Your task to perform on an android device: Search for sushi restaurants on Maps Image 0: 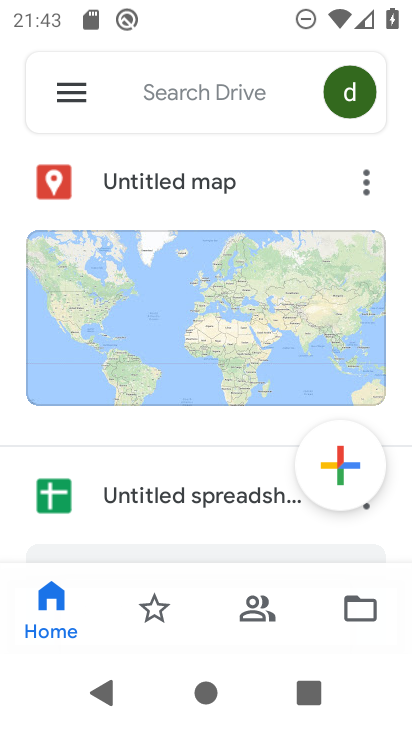
Step 0: press home button
Your task to perform on an android device: Search for sushi restaurants on Maps Image 1: 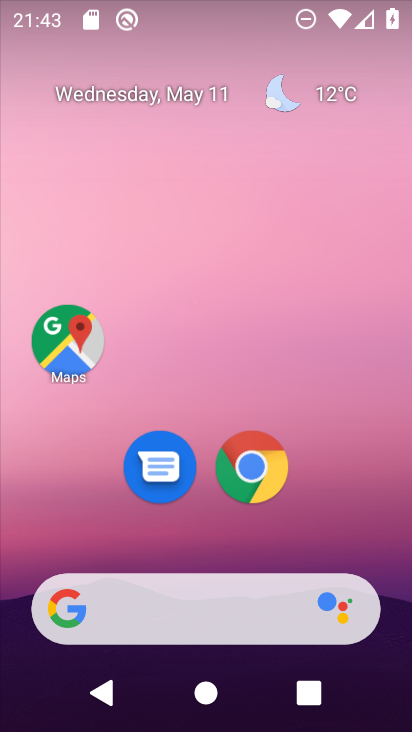
Step 1: click (69, 337)
Your task to perform on an android device: Search for sushi restaurants on Maps Image 2: 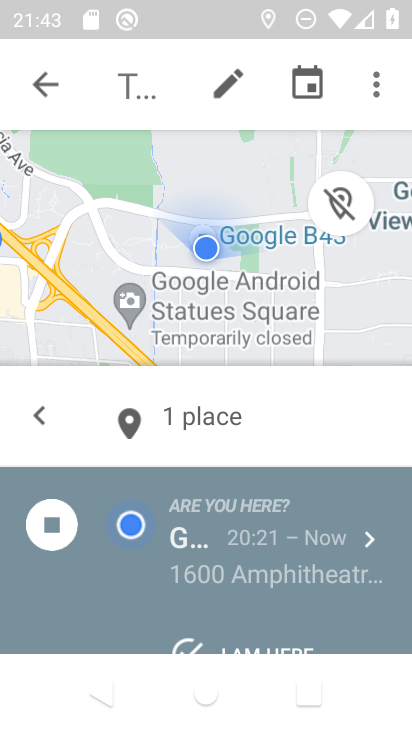
Step 2: click (51, 89)
Your task to perform on an android device: Search for sushi restaurants on Maps Image 3: 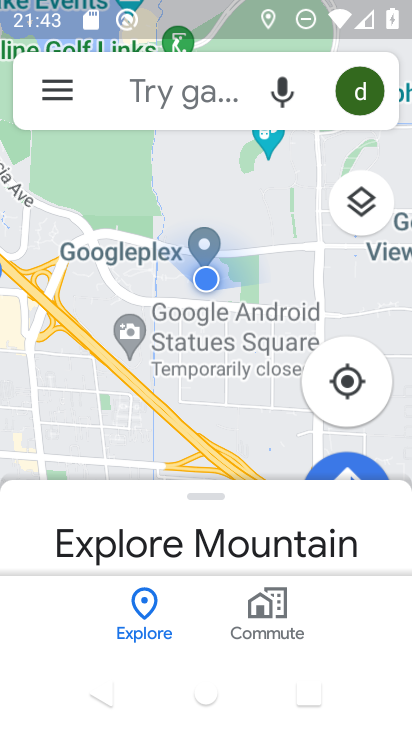
Step 3: click (138, 83)
Your task to perform on an android device: Search for sushi restaurants on Maps Image 4: 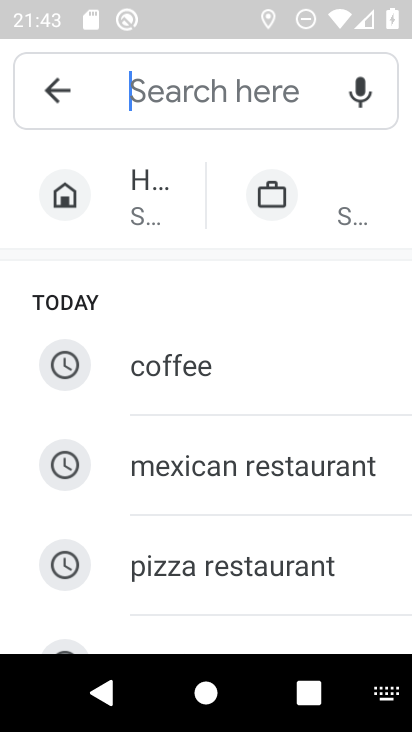
Step 4: type "sushi"
Your task to perform on an android device: Search for sushi restaurants on Maps Image 5: 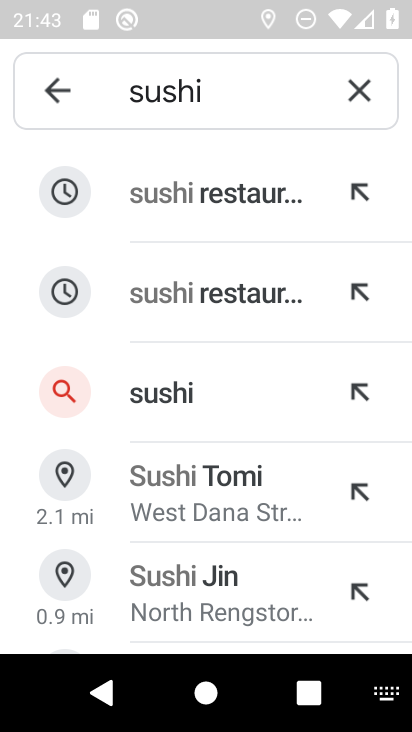
Step 5: click (200, 211)
Your task to perform on an android device: Search for sushi restaurants on Maps Image 6: 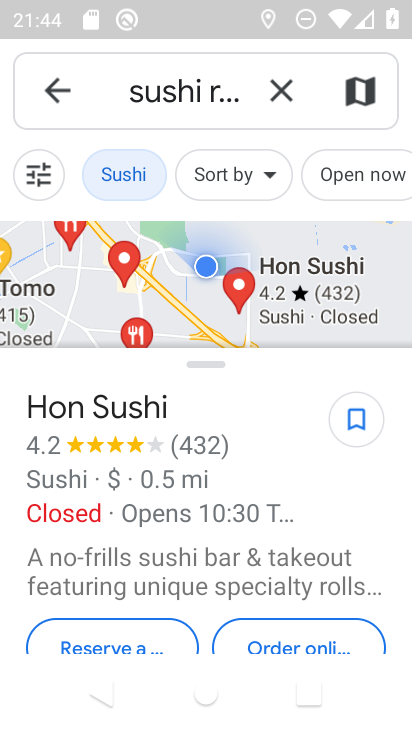
Step 6: task complete